Your task to perform on an android device: Open Amazon Image 0: 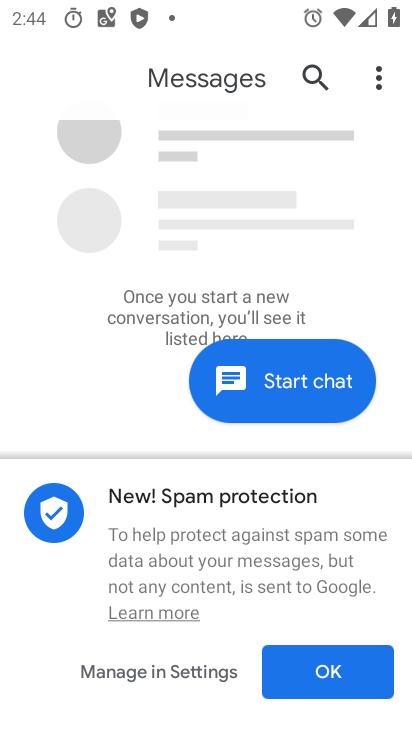
Step 0: press home button
Your task to perform on an android device: Open Amazon Image 1: 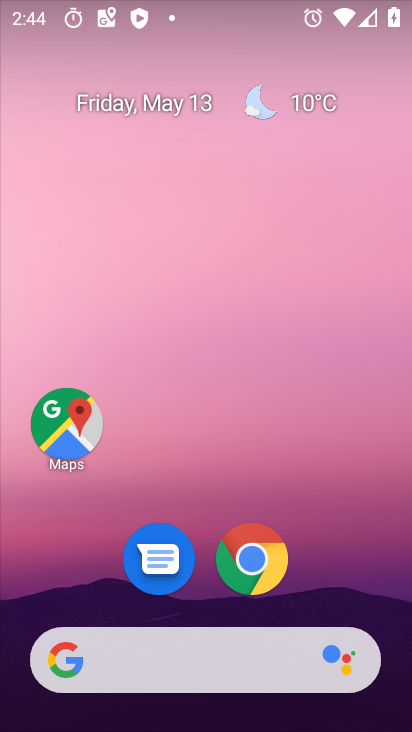
Step 1: click (298, 547)
Your task to perform on an android device: Open Amazon Image 2: 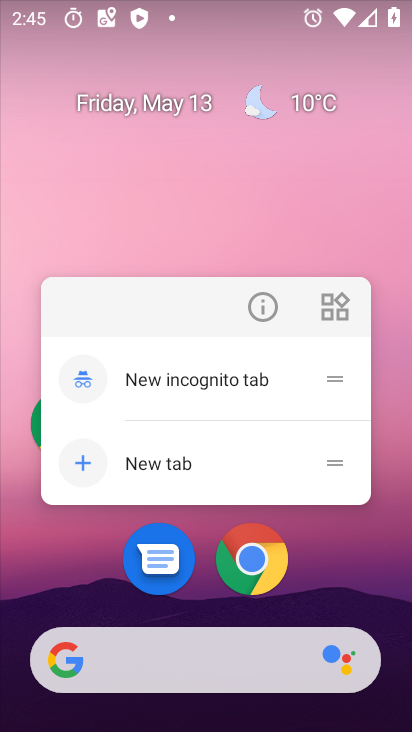
Step 2: click (274, 554)
Your task to perform on an android device: Open Amazon Image 3: 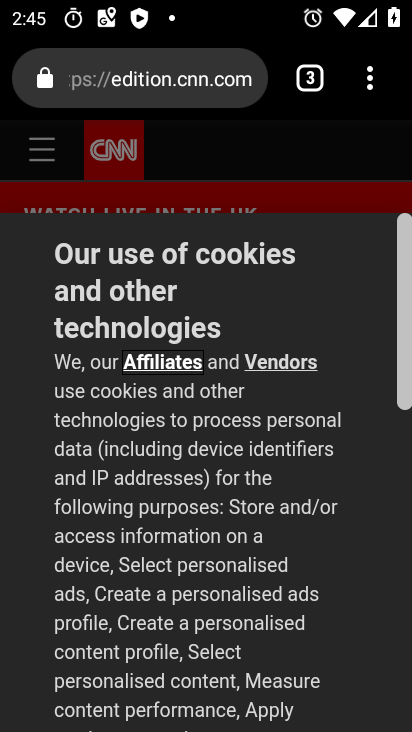
Step 3: click (309, 70)
Your task to perform on an android device: Open Amazon Image 4: 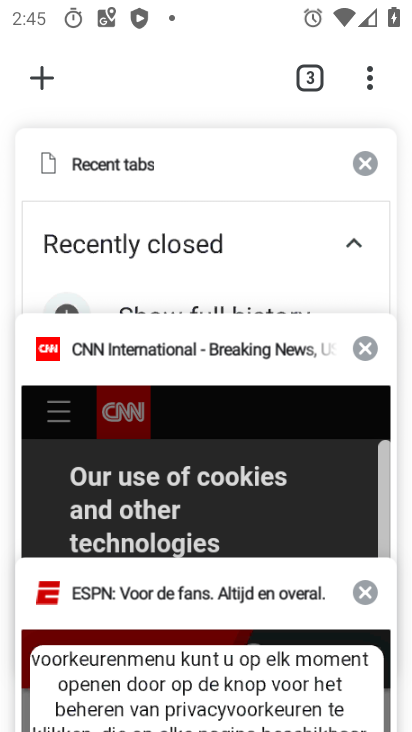
Step 4: click (36, 88)
Your task to perform on an android device: Open Amazon Image 5: 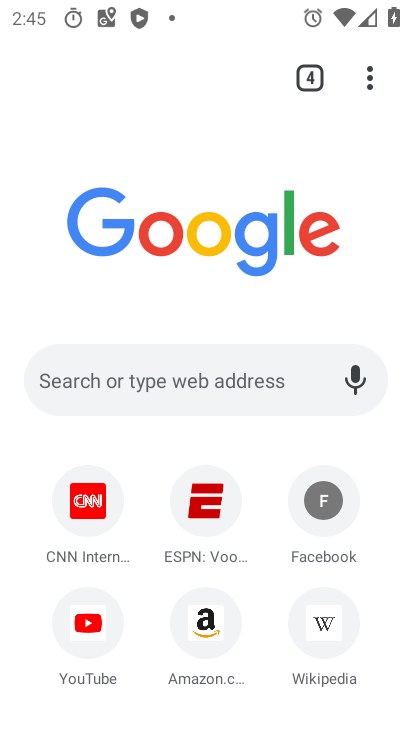
Step 5: drag from (290, 520) to (296, 313)
Your task to perform on an android device: Open Amazon Image 6: 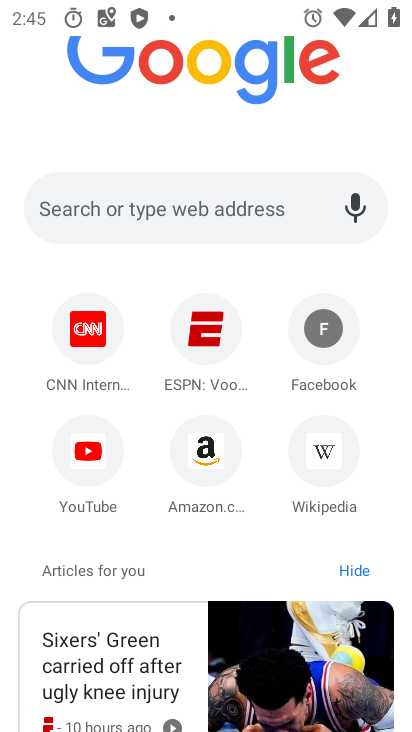
Step 6: click (184, 453)
Your task to perform on an android device: Open Amazon Image 7: 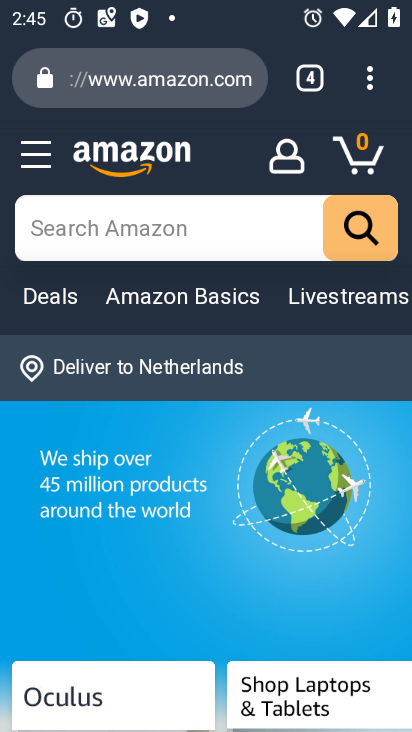
Step 7: task complete